Your task to perform on an android device: change your default location settings in chrome Image 0: 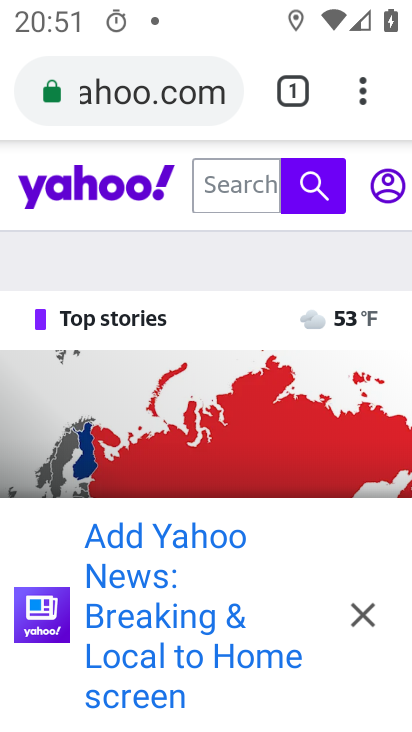
Step 0: press home button
Your task to perform on an android device: change your default location settings in chrome Image 1: 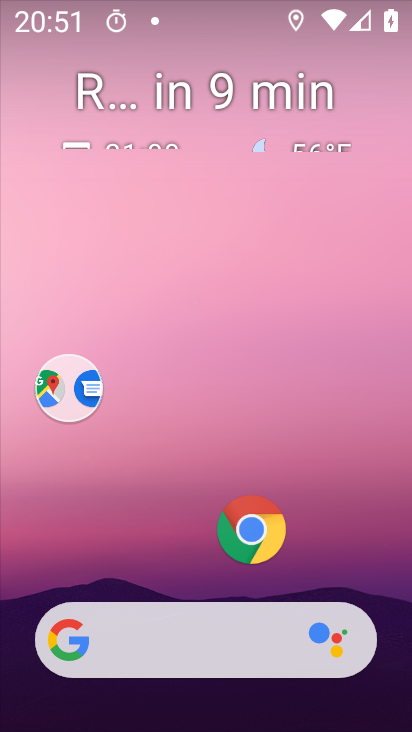
Step 1: click (255, 529)
Your task to perform on an android device: change your default location settings in chrome Image 2: 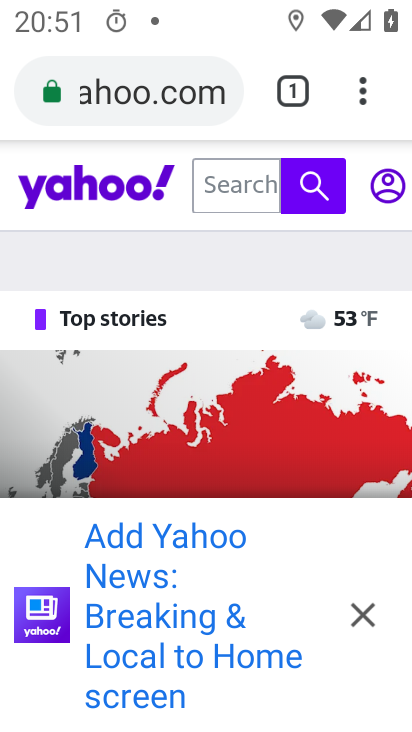
Step 2: click (356, 86)
Your task to perform on an android device: change your default location settings in chrome Image 3: 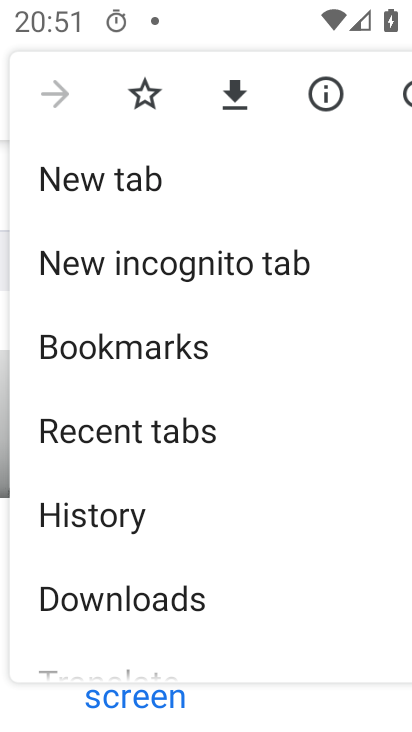
Step 3: drag from (246, 495) to (233, 119)
Your task to perform on an android device: change your default location settings in chrome Image 4: 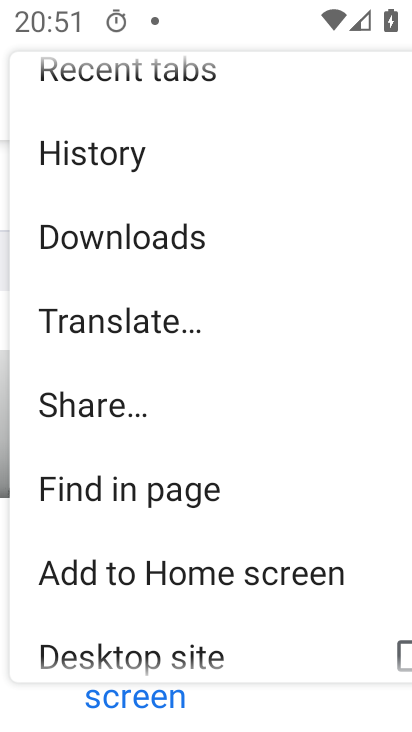
Step 4: drag from (228, 505) to (196, 81)
Your task to perform on an android device: change your default location settings in chrome Image 5: 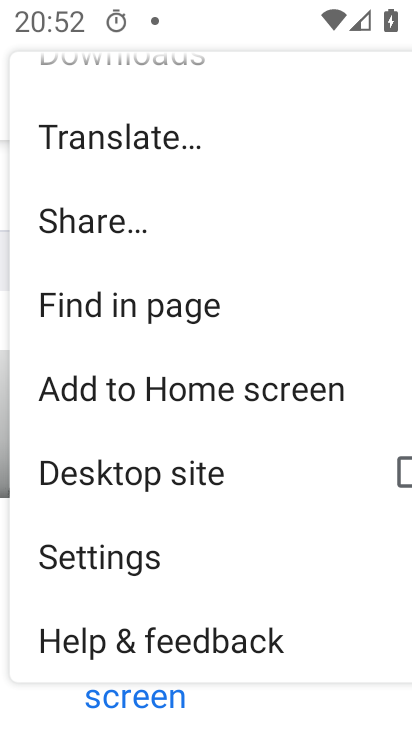
Step 5: click (102, 561)
Your task to perform on an android device: change your default location settings in chrome Image 6: 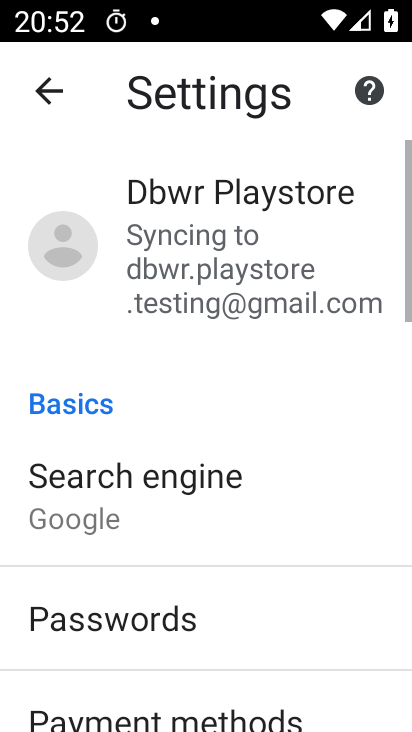
Step 6: click (151, 509)
Your task to perform on an android device: change your default location settings in chrome Image 7: 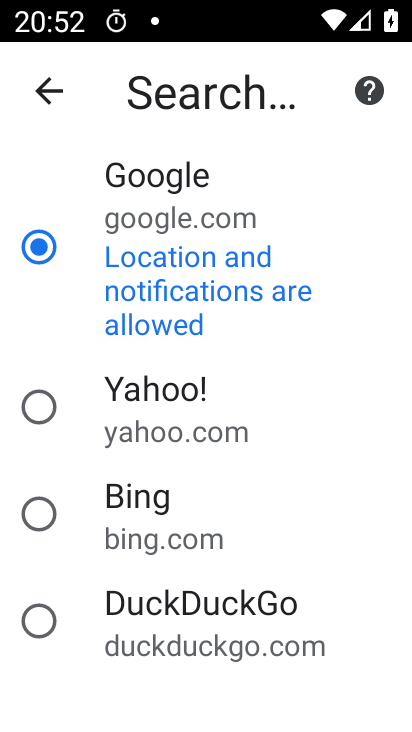
Step 7: click (40, 403)
Your task to perform on an android device: change your default location settings in chrome Image 8: 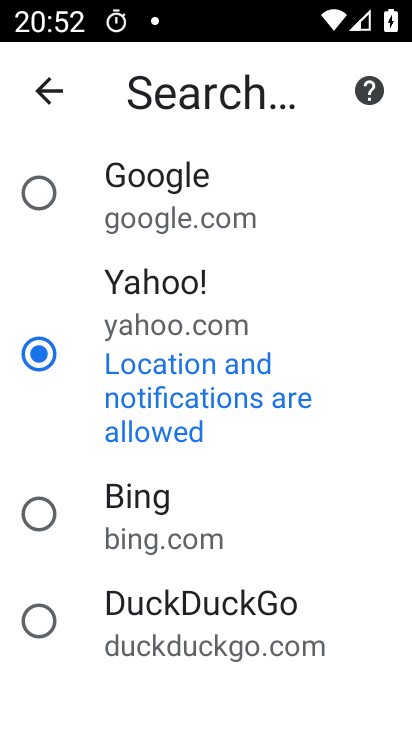
Step 8: task complete